Your task to perform on an android device: Open Maps and search for coffee Image 0: 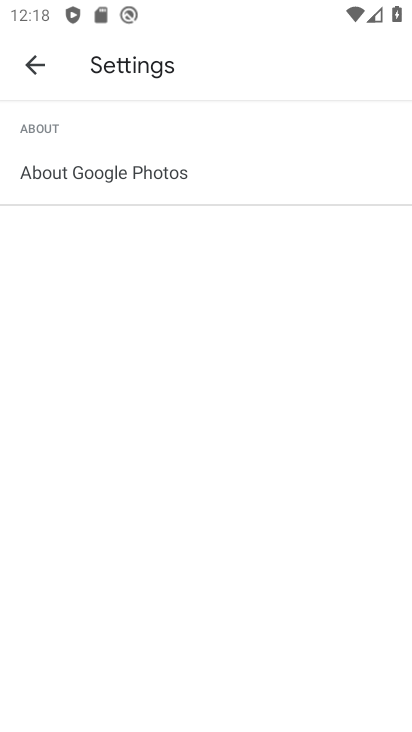
Step 0: press home button
Your task to perform on an android device: Open Maps and search for coffee Image 1: 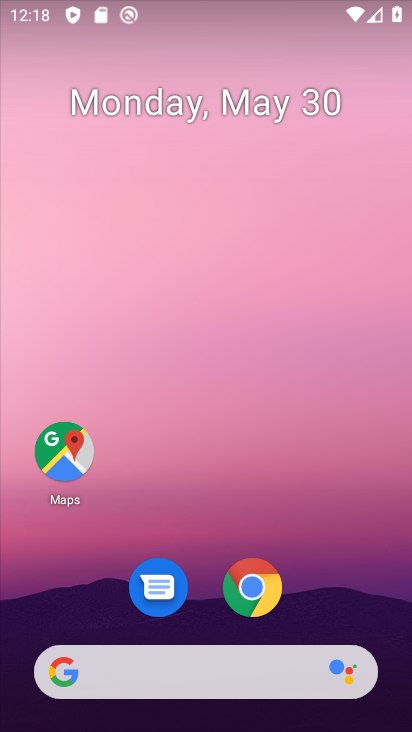
Step 1: click (67, 458)
Your task to perform on an android device: Open Maps and search for coffee Image 2: 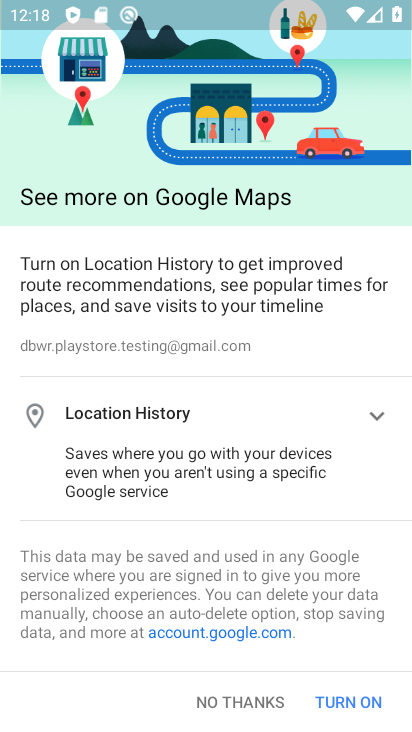
Step 2: click (250, 702)
Your task to perform on an android device: Open Maps and search for coffee Image 3: 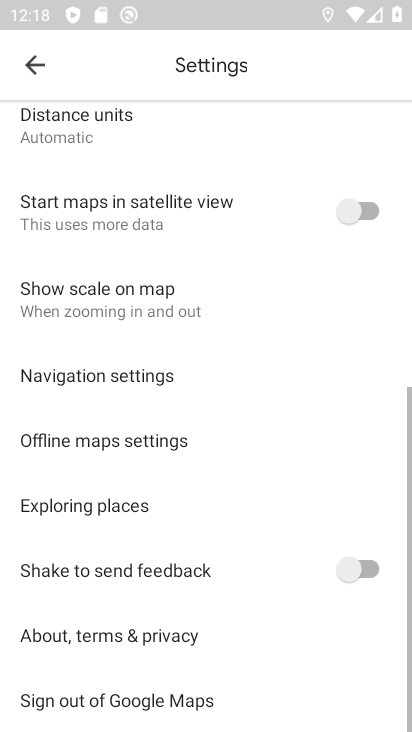
Step 3: click (20, 62)
Your task to perform on an android device: Open Maps and search for coffee Image 4: 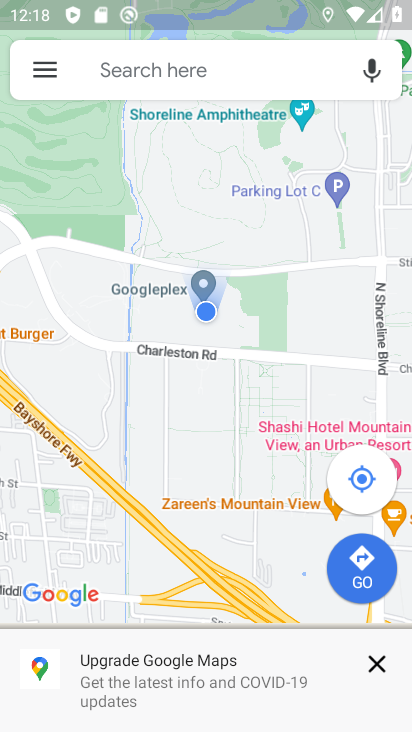
Step 4: click (129, 82)
Your task to perform on an android device: Open Maps and search for coffee Image 5: 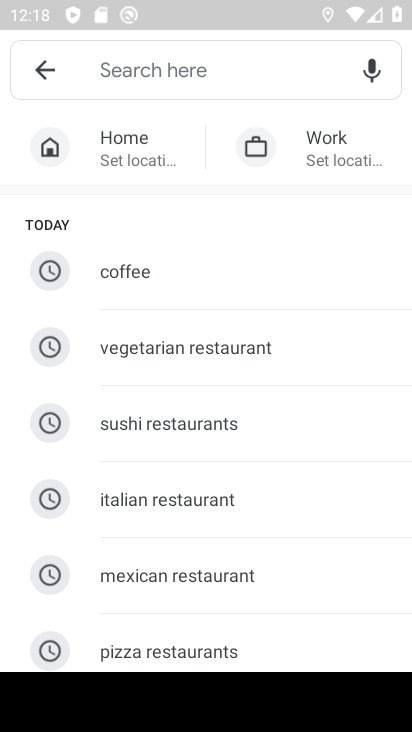
Step 5: click (154, 282)
Your task to perform on an android device: Open Maps and search for coffee Image 6: 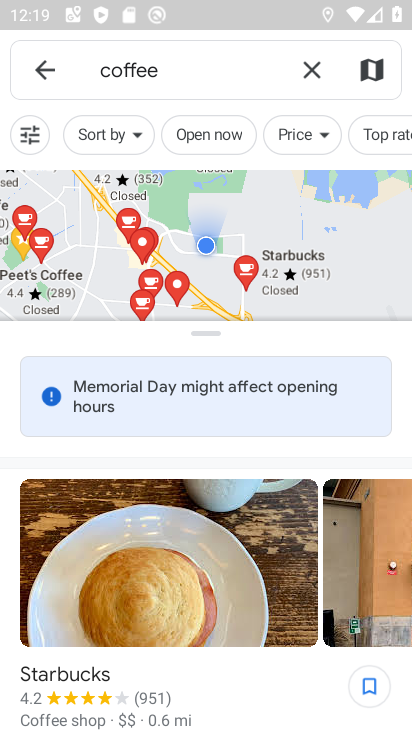
Step 6: task complete